Your task to perform on an android device: Search for the best 4k TVs Image 0: 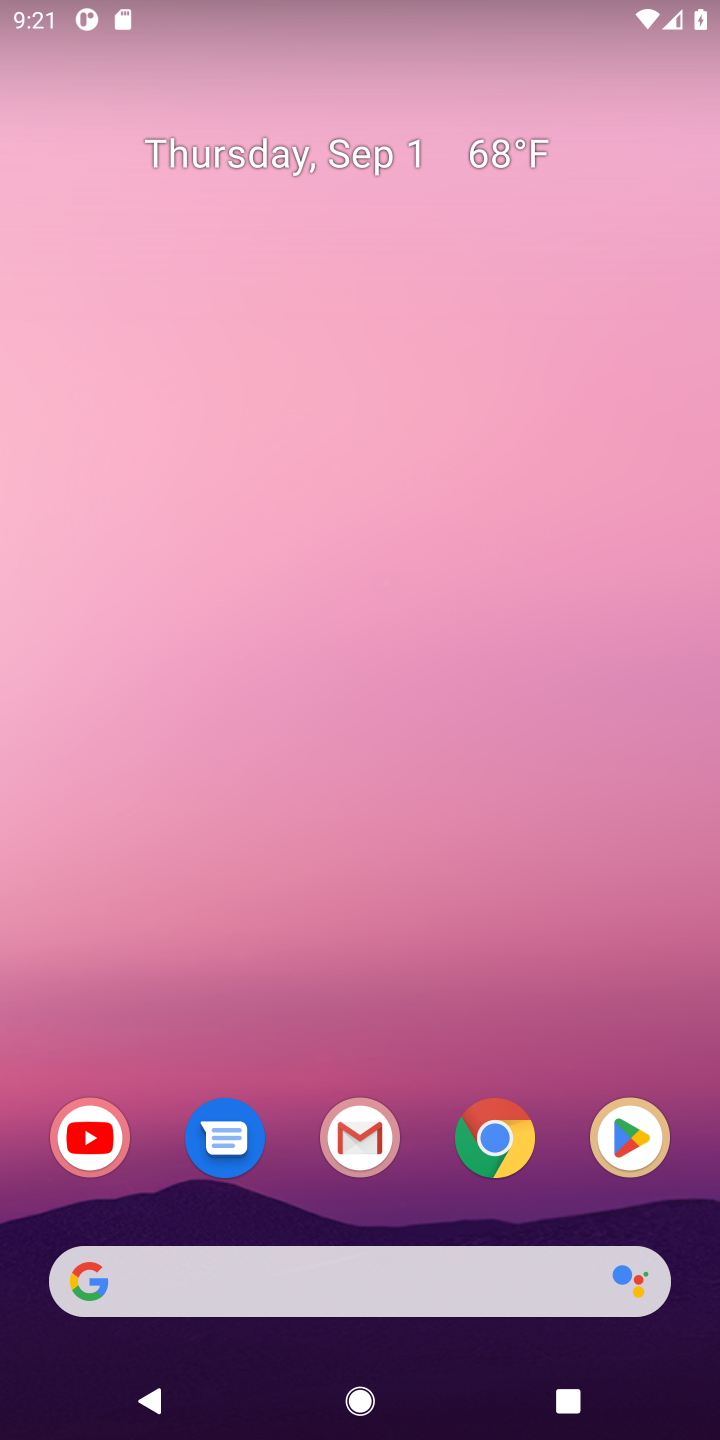
Step 0: click (486, 1133)
Your task to perform on an android device: Search for the best 4k TVs Image 1: 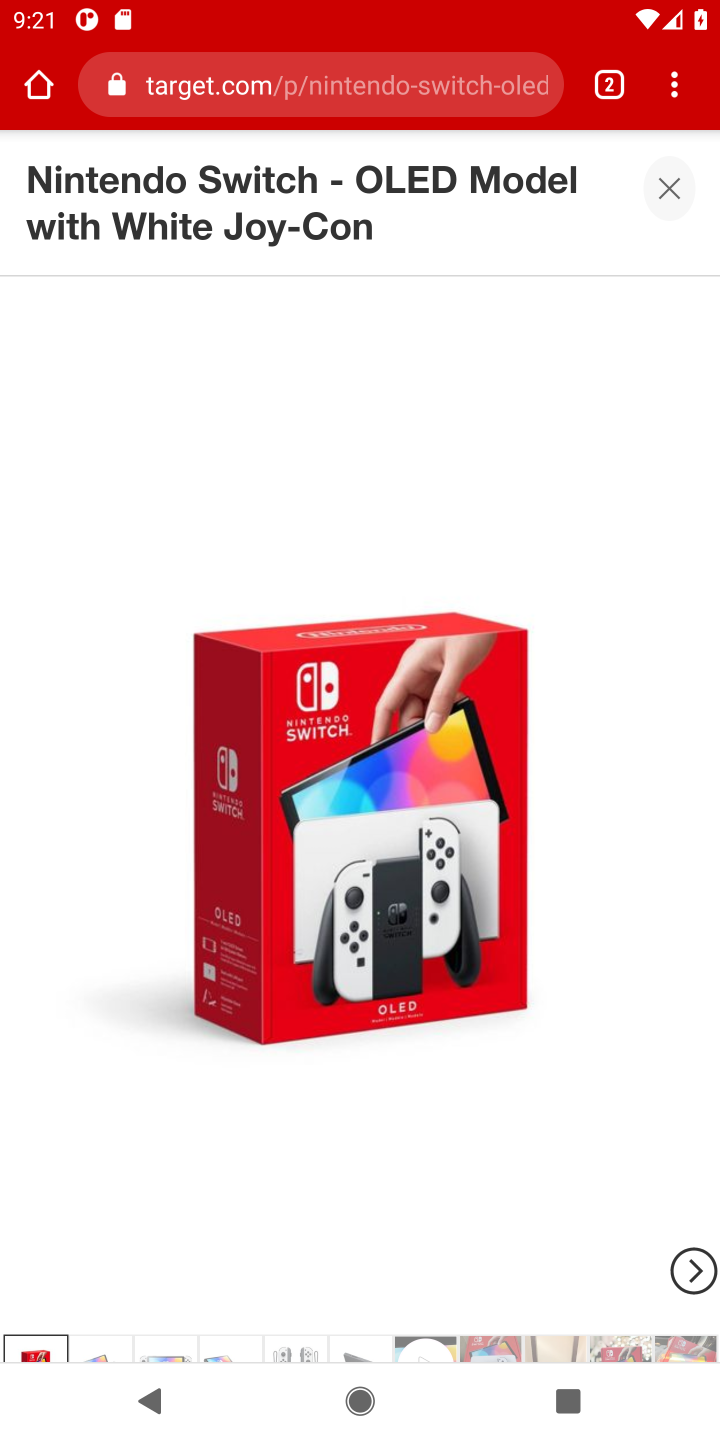
Step 1: press back button
Your task to perform on an android device: Search for the best 4k TVs Image 2: 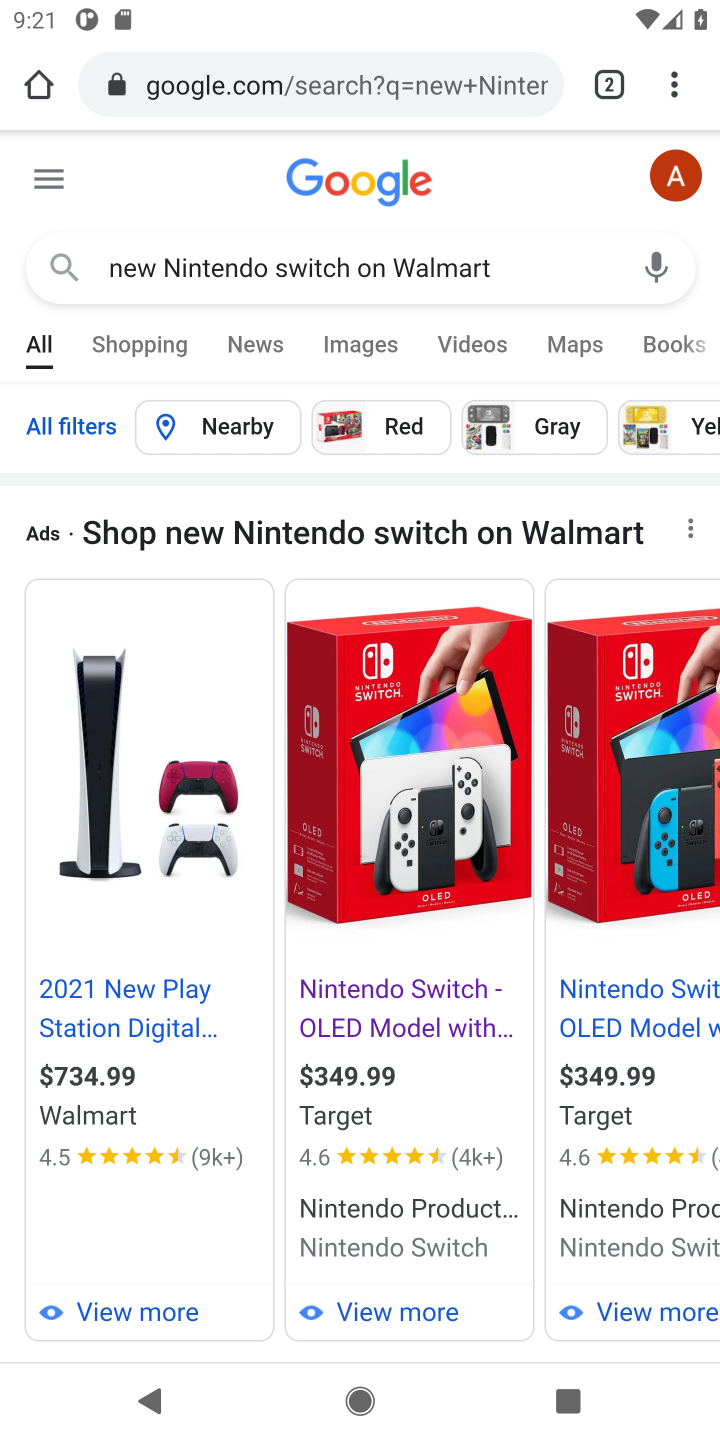
Step 2: click (311, 68)
Your task to perform on an android device: Search for the best 4k TVs Image 3: 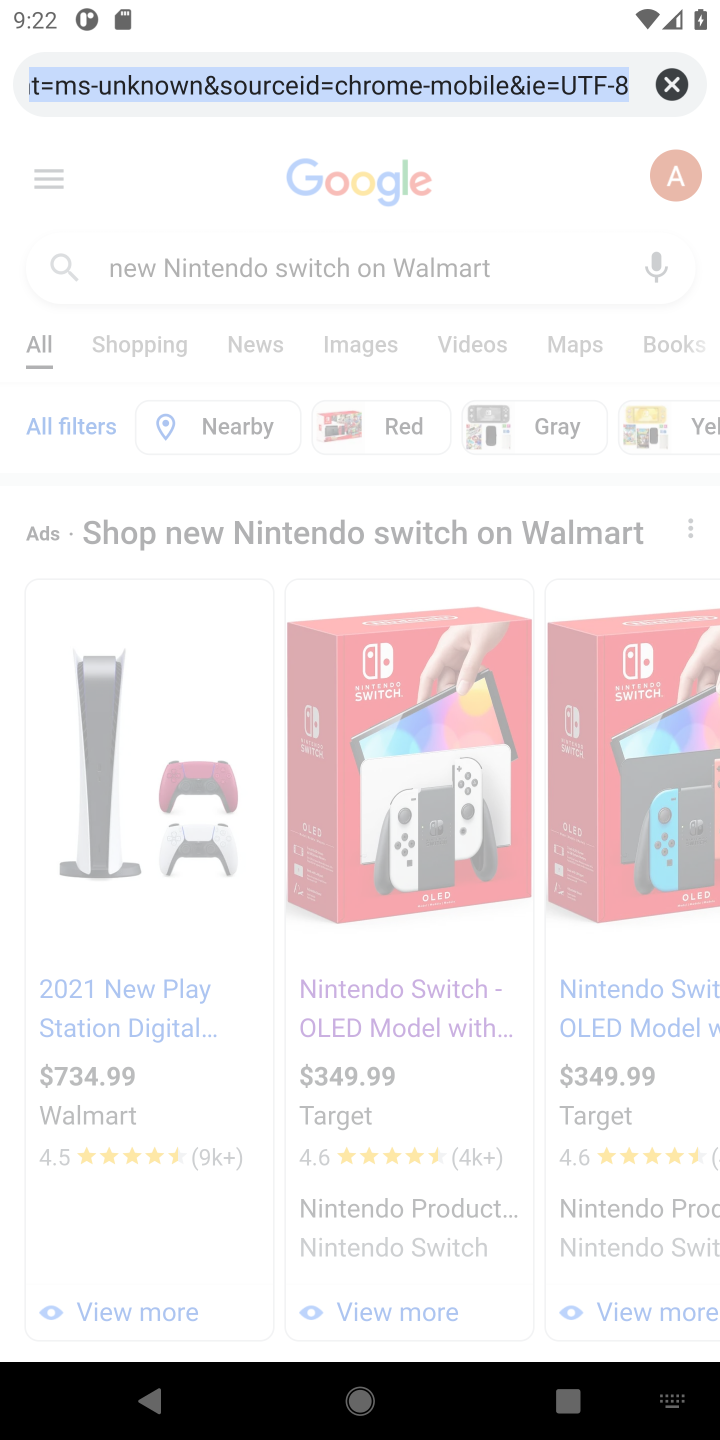
Step 3: click (665, 84)
Your task to perform on an android device: Search for the best 4k TVs Image 4: 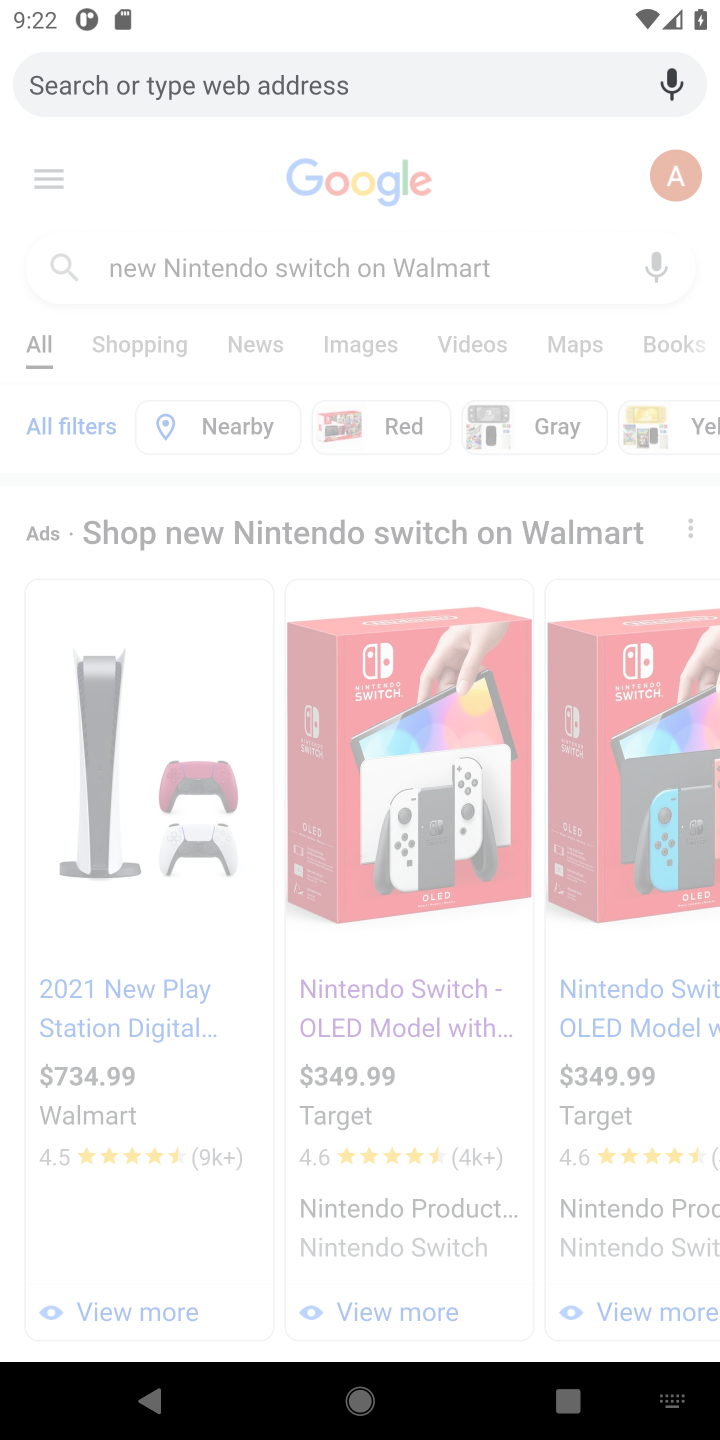
Step 4: type "the best 4k TVs"
Your task to perform on an android device: Search for the best 4k TVs Image 5: 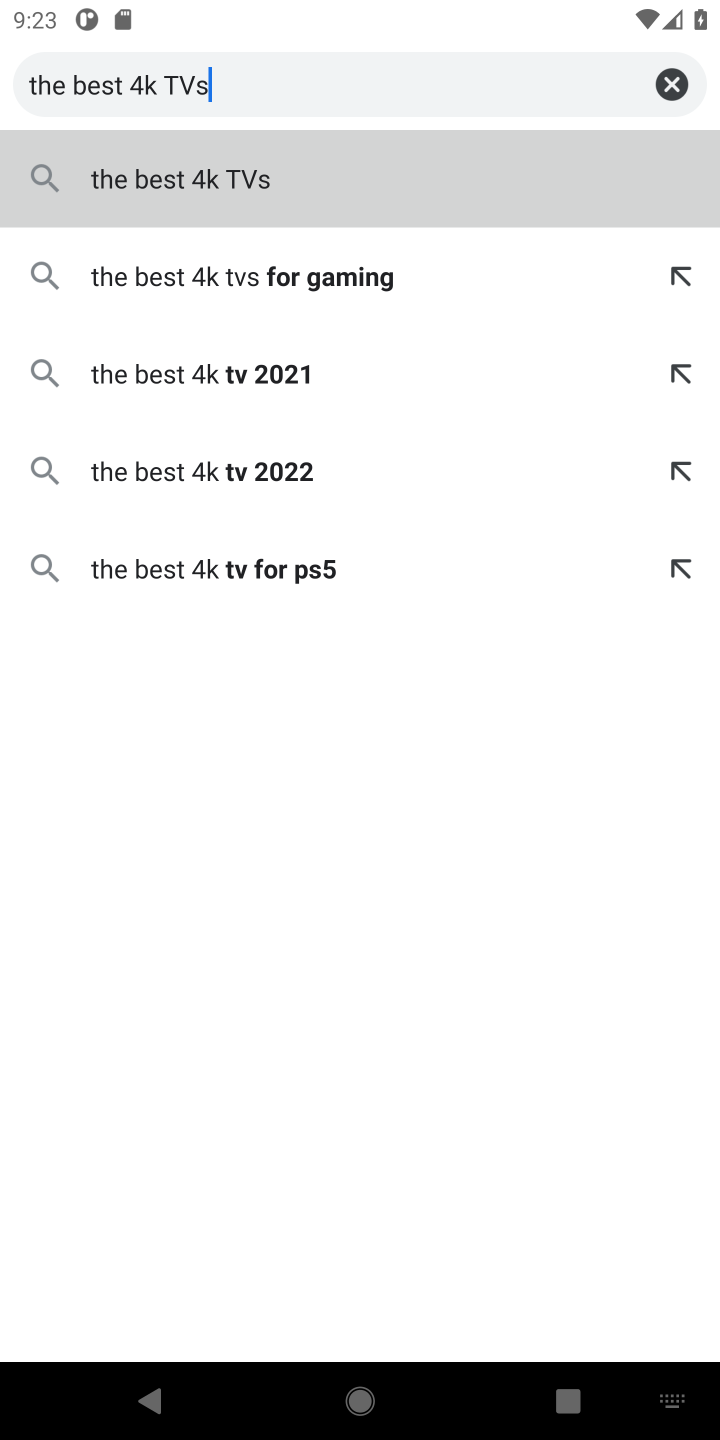
Step 5: click (150, 185)
Your task to perform on an android device: Search for the best 4k TVs Image 6: 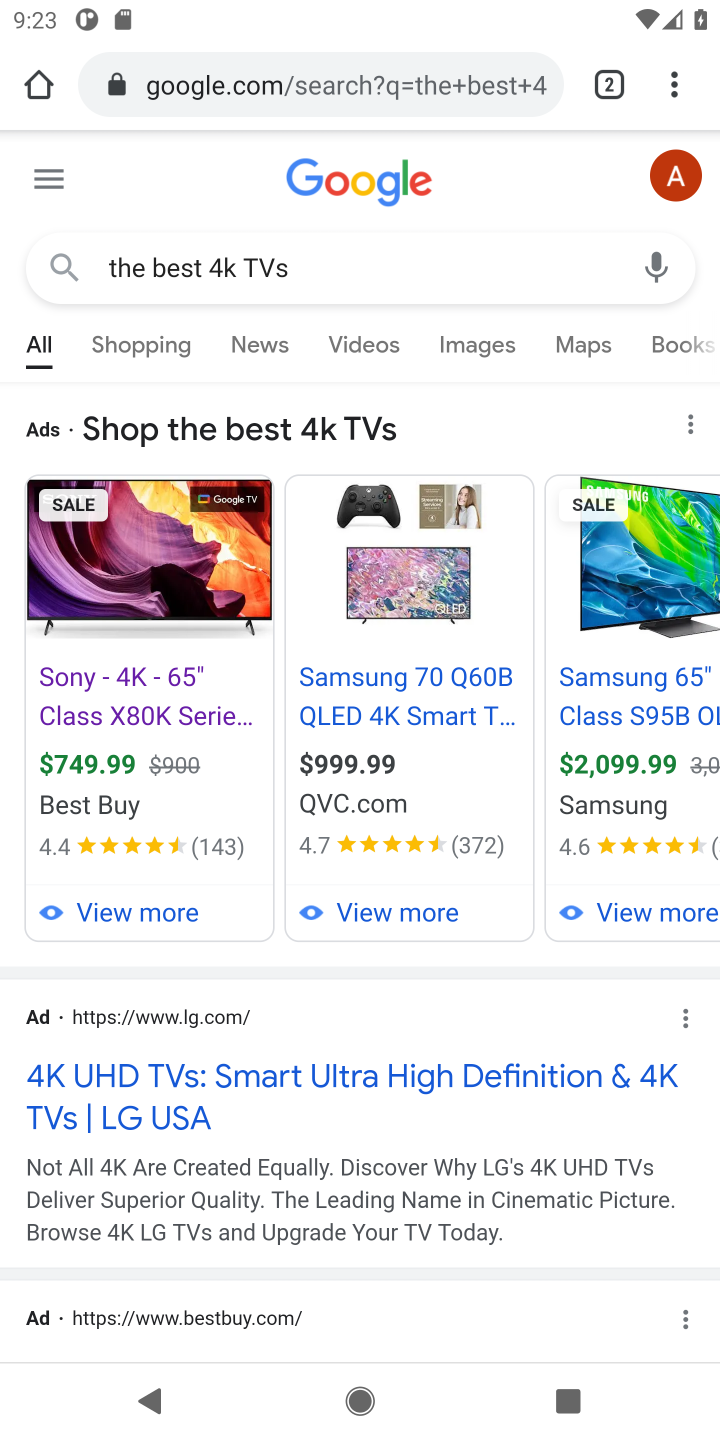
Step 6: click (326, 688)
Your task to perform on an android device: Search for the best 4k TVs Image 7: 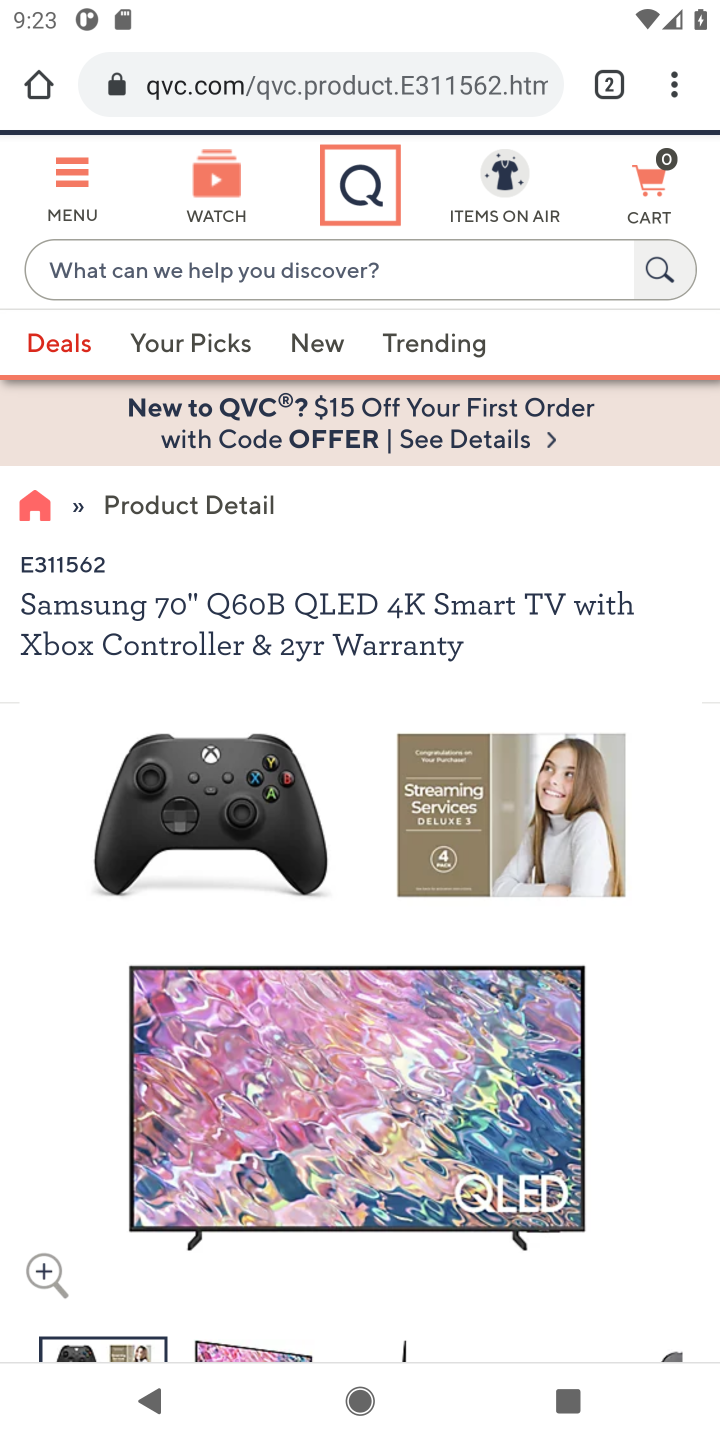
Step 7: task complete